Your task to perform on an android device: turn on sleep mode Image 0: 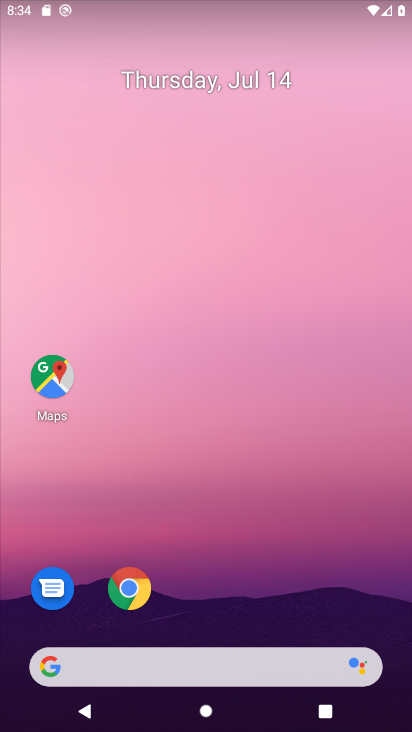
Step 0: drag from (339, 606) to (335, 82)
Your task to perform on an android device: turn on sleep mode Image 1: 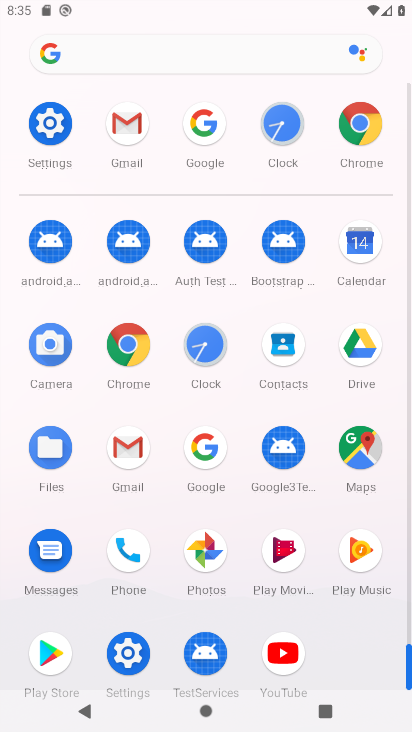
Step 1: click (62, 140)
Your task to perform on an android device: turn on sleep mode Image 2: 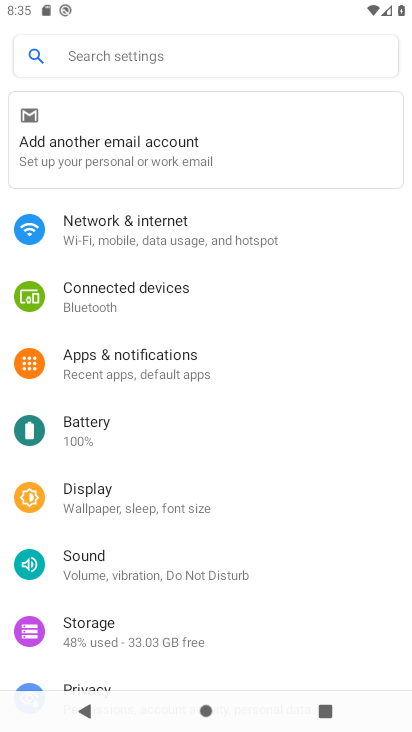
Step 2: click (109, 495)
Your task to perform on an android device: turn on sleep mode Image 3: 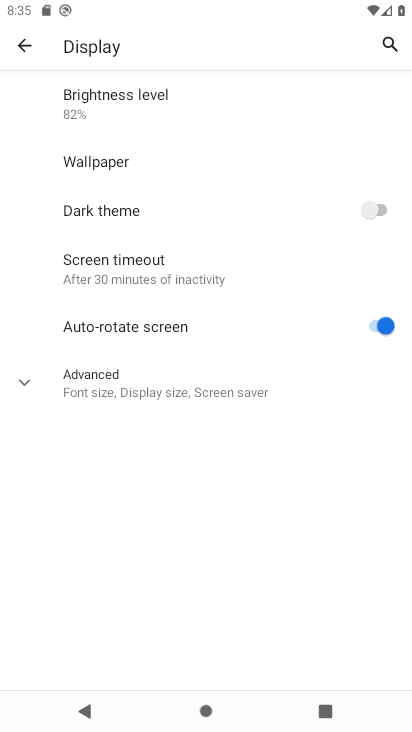
Step 3: click (179, 387)
Your task to perform on an android device: turn on sleep mode Image 4: 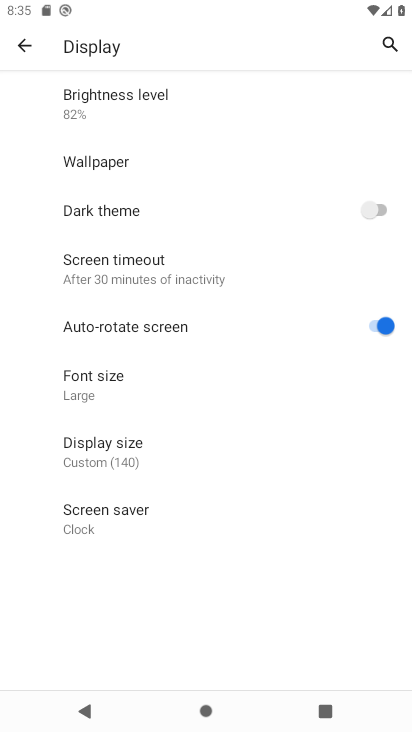
Step 4: task complete